Your task to perform on an android device: turn on notifications settings in the gmail app Image 0: 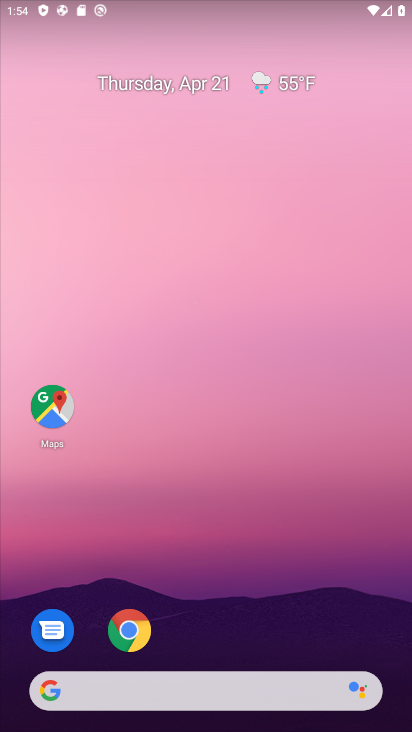
Step 0: click (44, 405)
Your task to perform on an android device: turn on notifications settings in the gmail app Image 1: 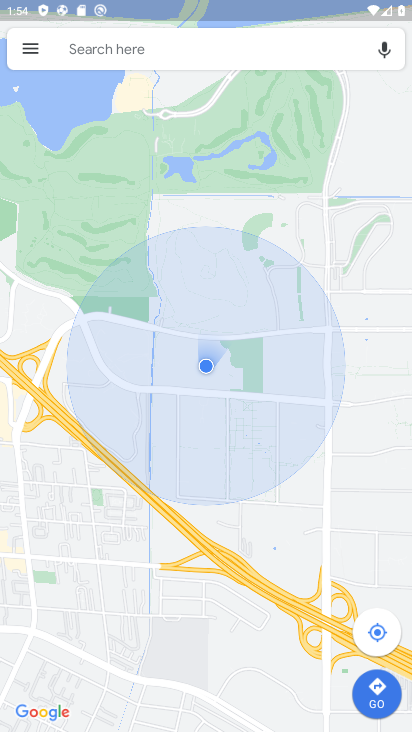
Step 1: press home button
Your task to perform on an android device: turn on notifications settings in the gmail app Image 2: 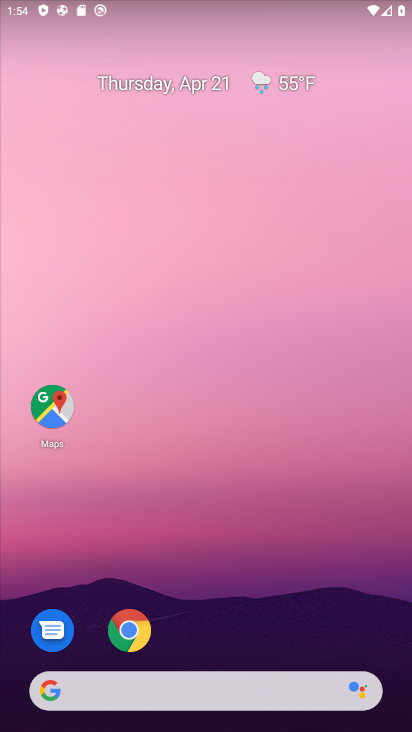
Step 2: drag from (263, 602) to (258, 210)
Your task to perform on an android device: turn on notifications settings in the gmail app Image 3: 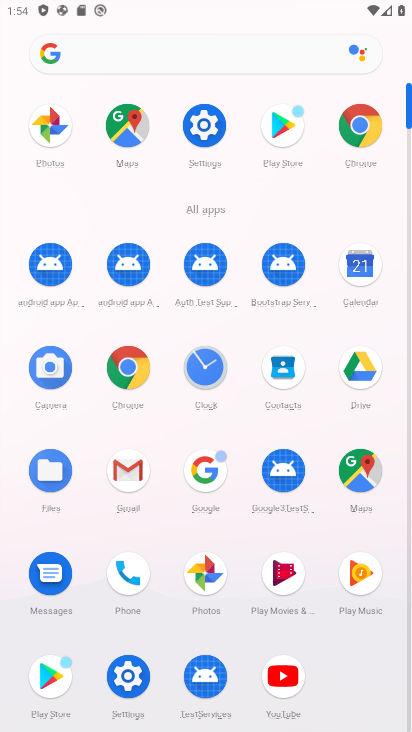
Step 3: click (132, 686)
Your task to perform on an android device: turn on notifications settings in the gmail app Image 4: 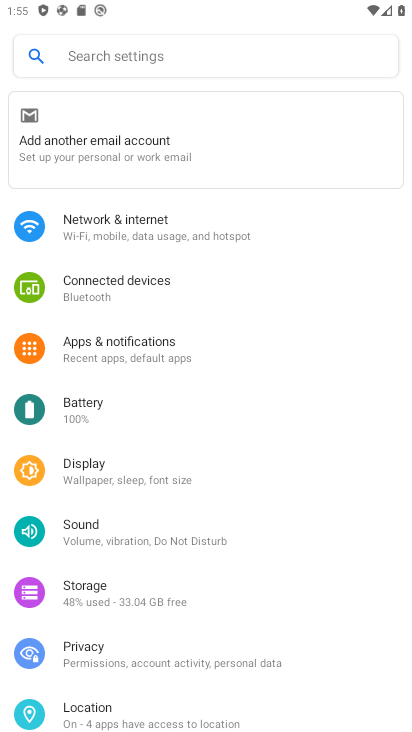
Step 4: click (149, 358)
Your task to perform on an android device: turn on notifications settings in the gmail app Image 5: 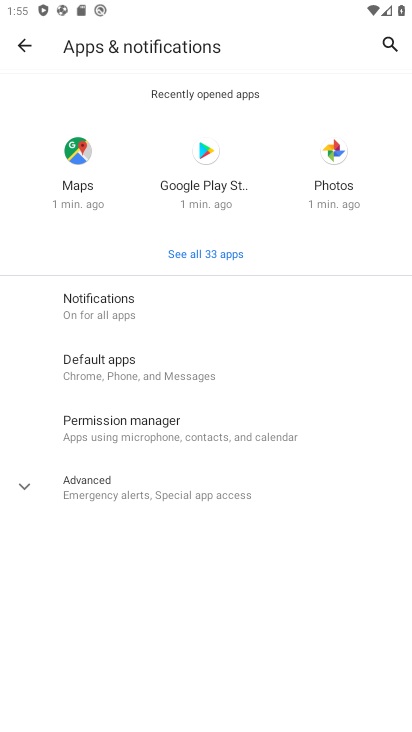
Step 5: click (130, 319)
Your task to perform on an android device: turn on notifications settings in the gmail app Image 6: 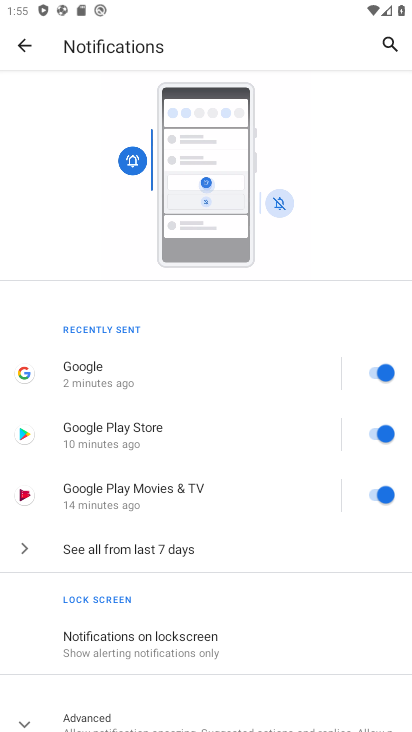
Step 6: click (208, 647)
Your task to perform on an android device: turn on notifications settings in the gmail app Image 7: 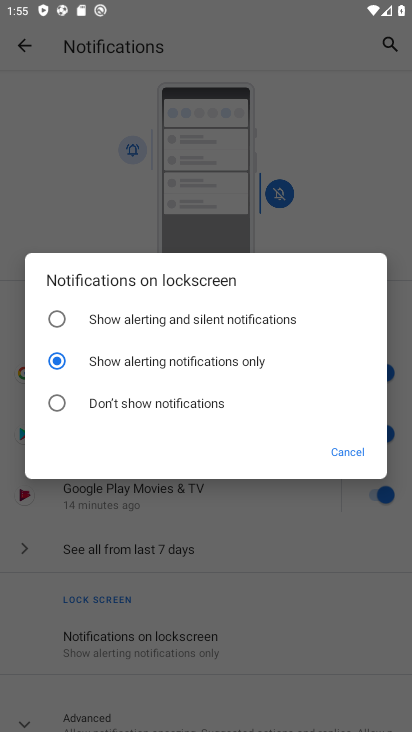
Step 7: click (243, 669)
Your task to perform on an android device: turn on notifications settings in the gmail app Image 8: 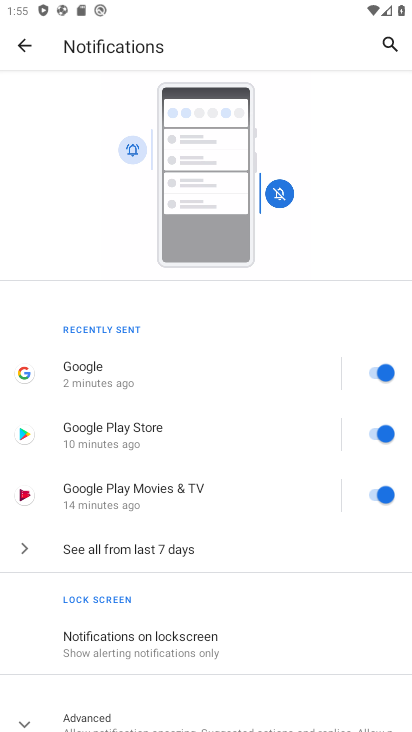
Step 8: drag from (239, 705) to (268, 458)
Your task to perform on an android device: turn on notifications settings in the gmail app Image 9: 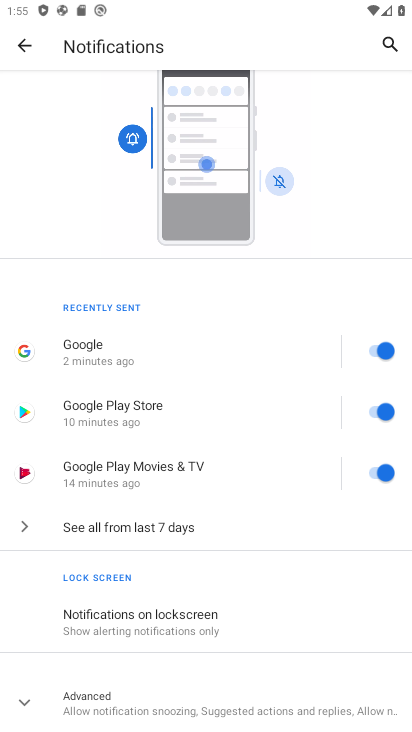
Step 9: click (27, 701)
Your task to perform on an android device: turn on notifications settings in the gmail app Image 10: 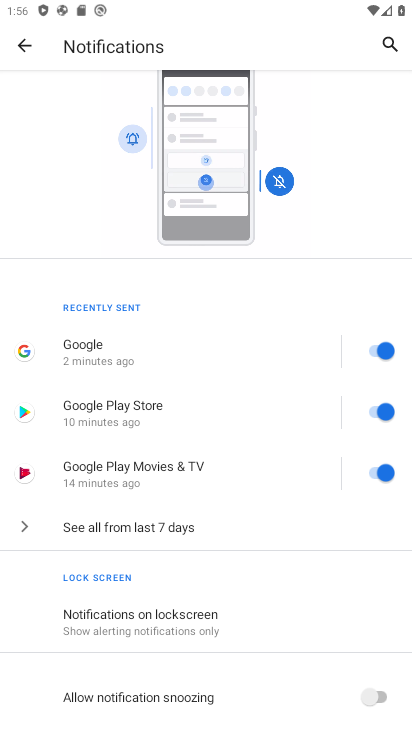
Step 10: task complete